Your task to perform on an android device: Open the stopwatch Image 0: 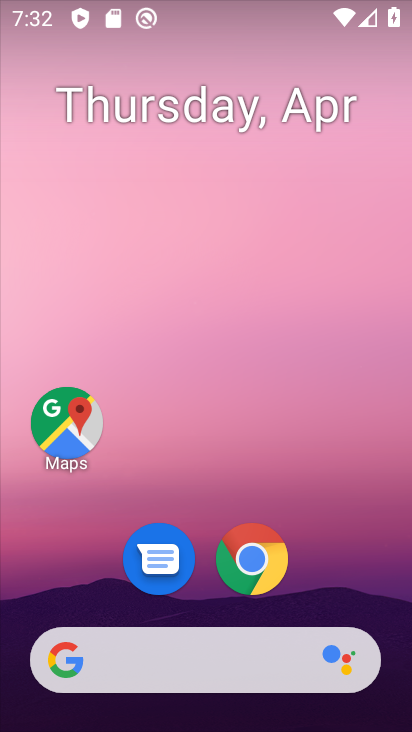
Step 0: drag from (236, 716) to (244, 93)
Your task to perform on an android device: Open the stopwatch Image 1: 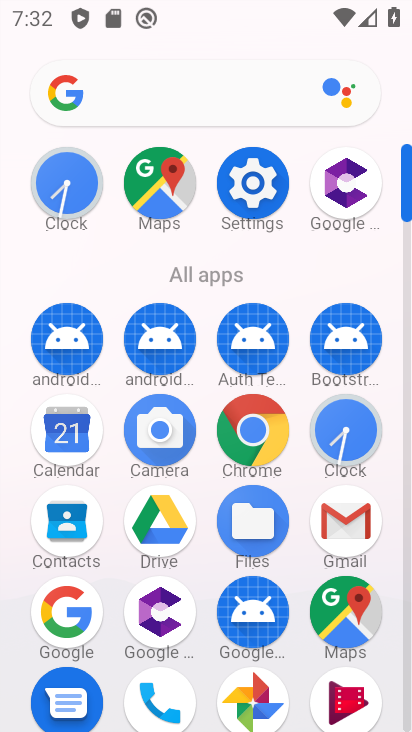
Step 1: click (341, 437)
Your task to perform on an android device: Open the stopwatch Image 2: 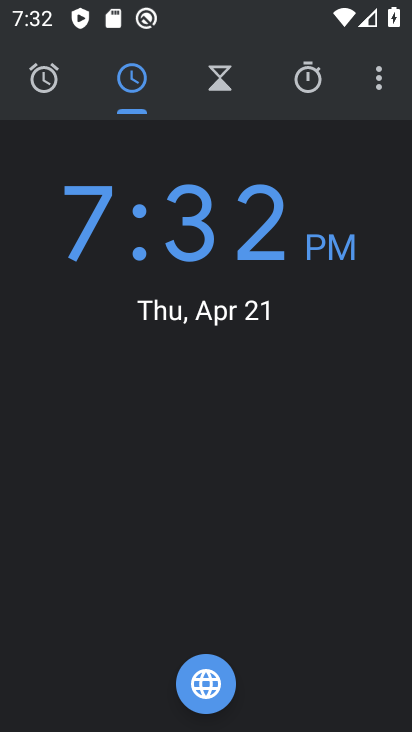
Step 2: click (303, 92)
Your task to perform on an android device: Open the stopwatch Image 3: 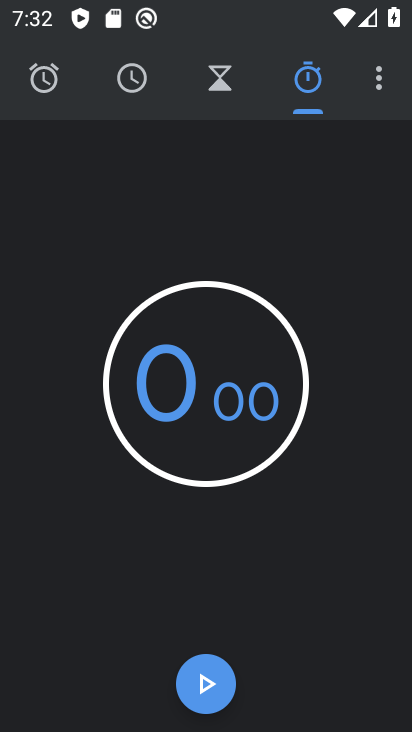
Step 3: task complete